Your task to perform on an android device: What's on my calendar tomorrow? Image 0: 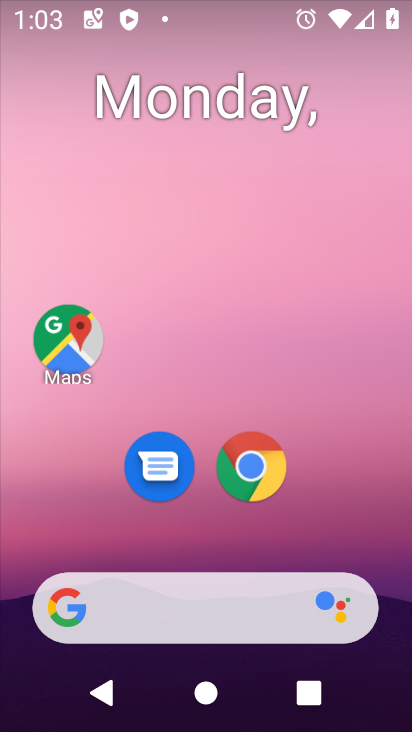
Step 0: drag from (380, 613) to (305, 83)
Your task to perform on an android device: What's on my calendar tomorrow? Image 1: 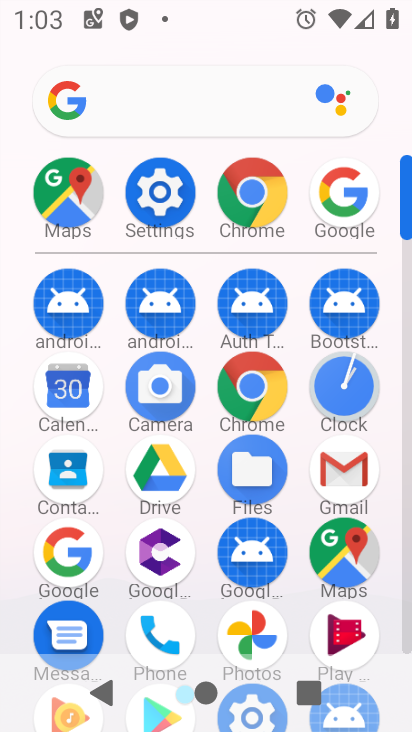
Step 1: click (64, 412)
Your task to perform on an android device: What's on my calendar tomorrow? Image 2: 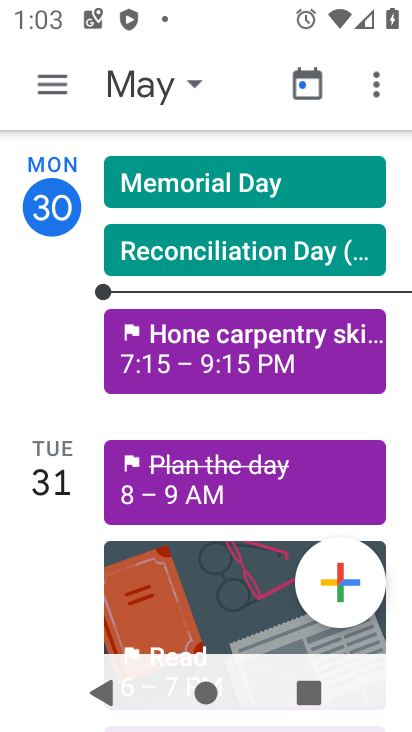
Step 2: click (138, 73)
Your task to perform on an android device: What's on my calendar tomorrow? Image 3: 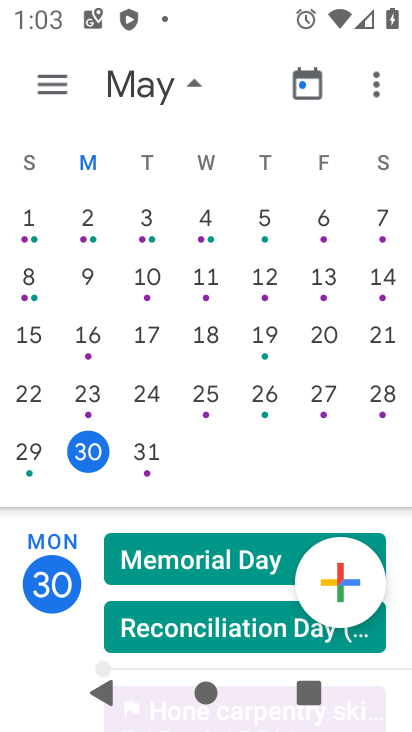
Step 3: click (136, 462)
Your task to perform on an android device: What's on my calendar tomorrow? Image 4: 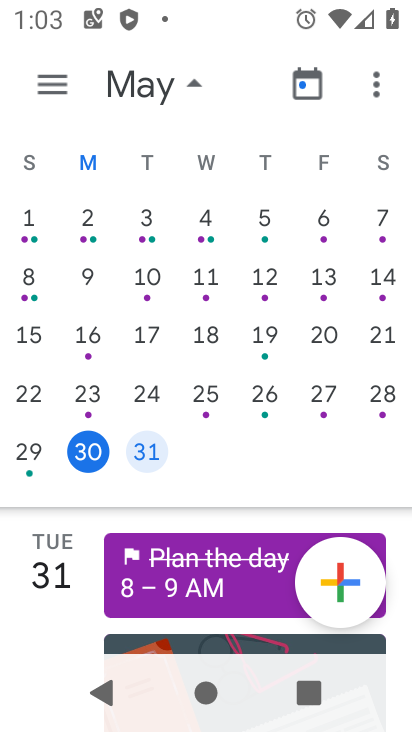
Step 4: click (240, 640)
Your task to perform on an android device: What's on my calendar tomorrow? Image 5: 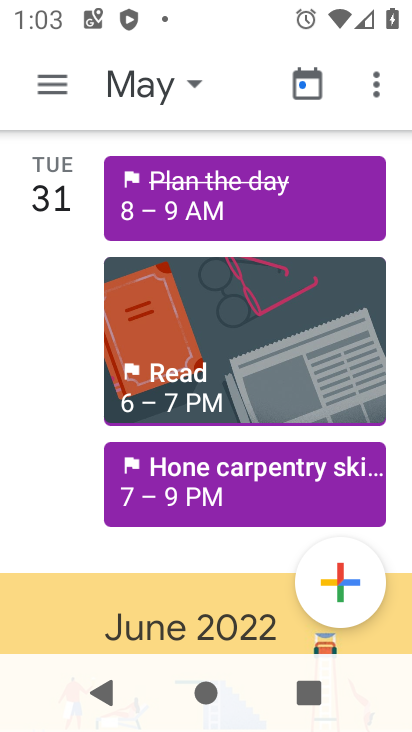
Step 5: click (278, 362)
Your task to perform on an android device: What's on my calendar tomorrow? Image 6: 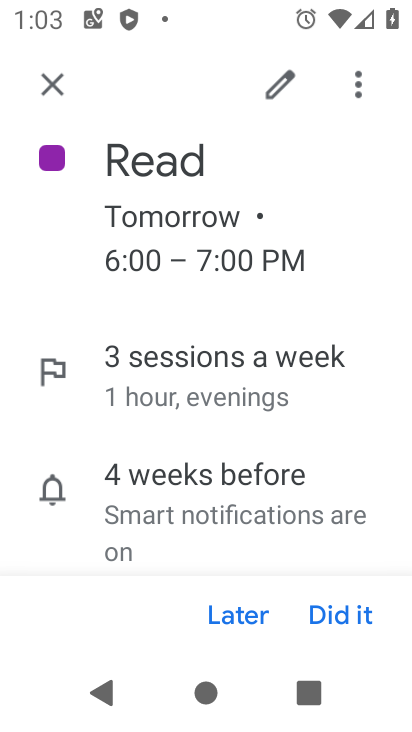
Step 6: task complete